Your task to perform on an android device: turn notification dots on Image 0: 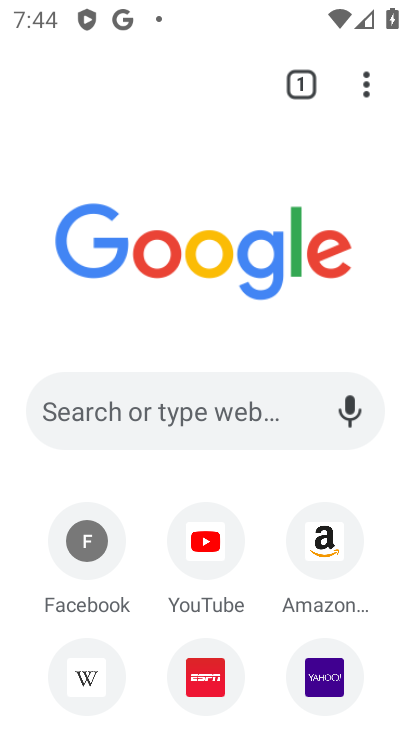
Step 0: press back button
Your task to perform on an android device: turn notification dots on Image 1: 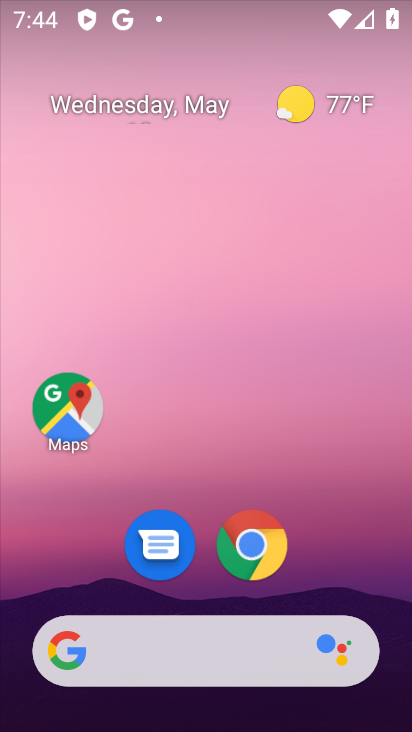
Step 1: drag from (327, 575) to (256, 129)
Your task to perform on an android device: turn notification dots on Image 2: 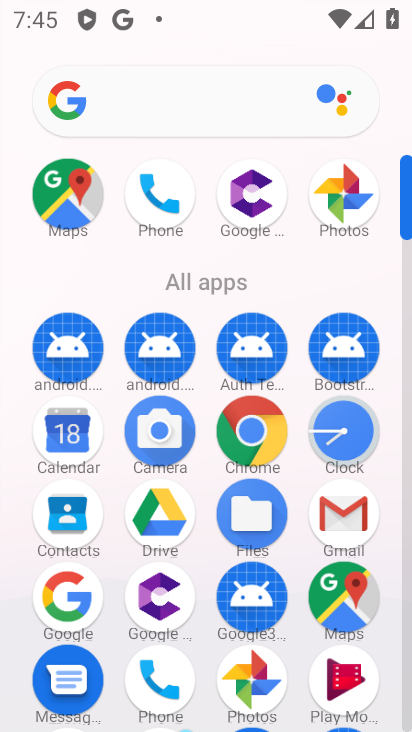
Step 2: drag from (123, 642) to (139, 411)
Your task to perform on an android device: turn notification dots on Image 3: 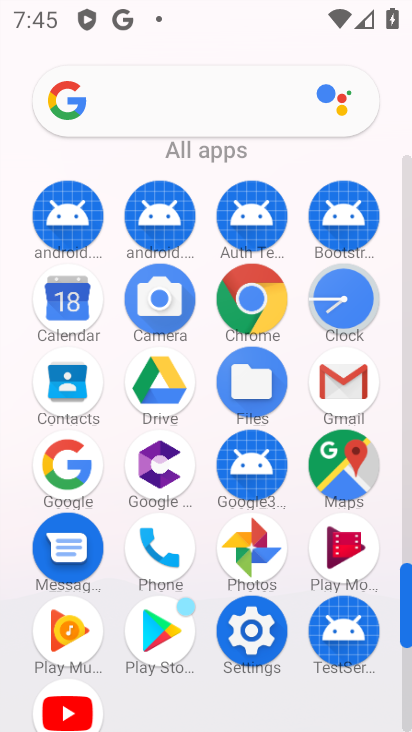
Step 3: click (252, 632)
Your task to perform on an android device: turn notification dots on Image 4: 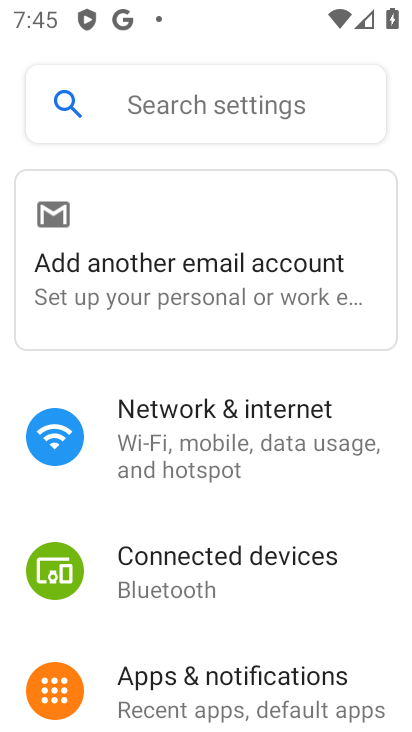
Step 4: drag from (196, 512) to (222, 416)
Your task to perform on an android device: turn notification dots on Image 5: 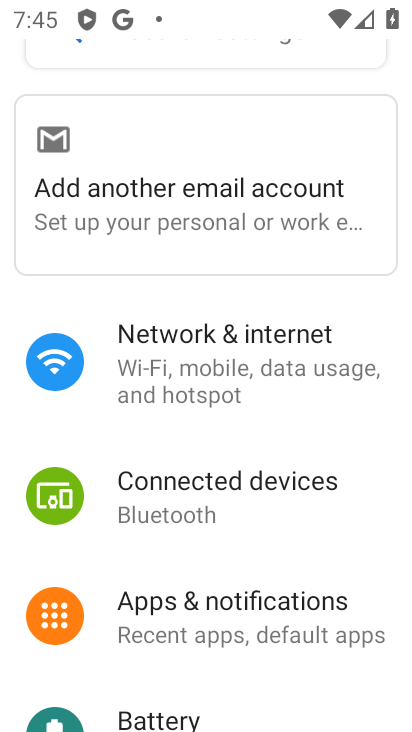
Step 5: click (244, 603)
Your task to perform on an android device: turn notification dots on Image 6: 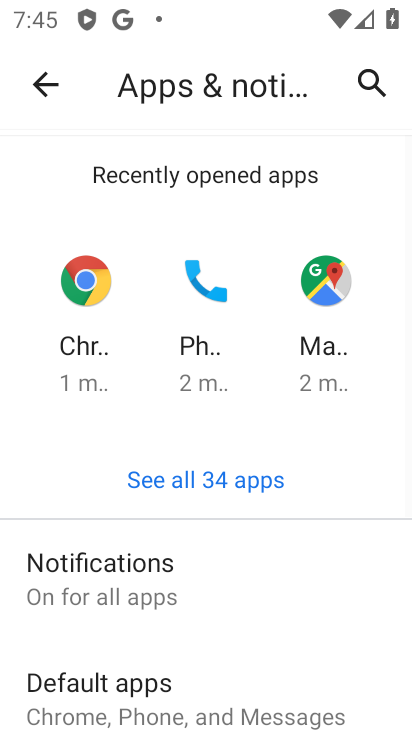
Step 6: drag from (213, 607) to (267, 480)
Your task to perform on an android device: turn notification dots on Image 7: 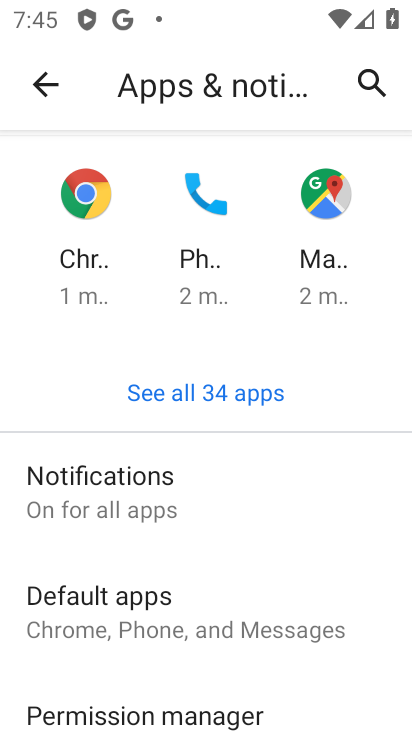
Step 7: click (102, 478)
Your task to perform on an android device: turn notification dots on Image 8: 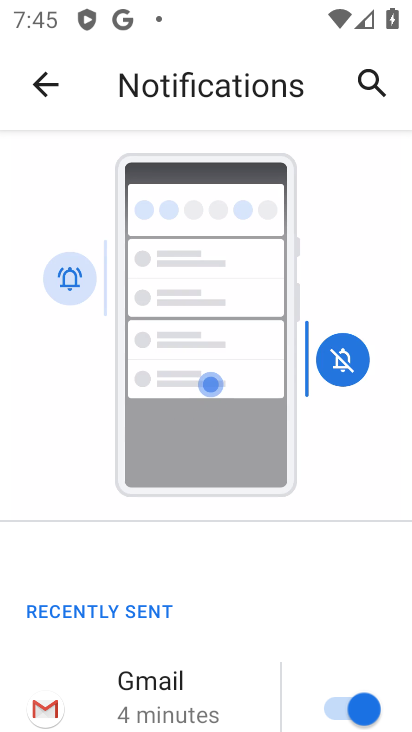
Step 8: drag from (236, 568) to (251, 455)
Your task to perform on an android device: turn notification dots on Image 9: 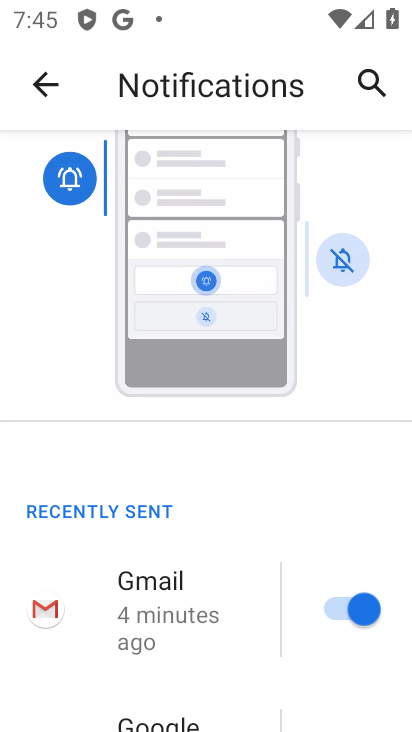
Step 9: drag from (220, 573) to (255, 468)
Your task to perform on an android device: turn notification dots on Image 10: 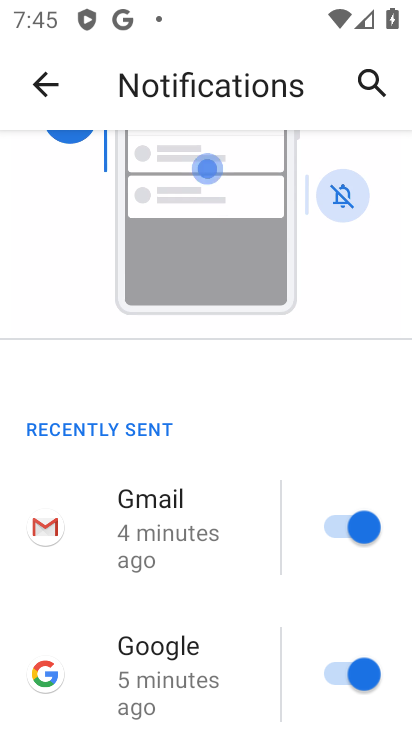
Step 10: drag from (235, 593) to (248, 421)
Your task to perform on an android device: turn notification dots on Image 11: 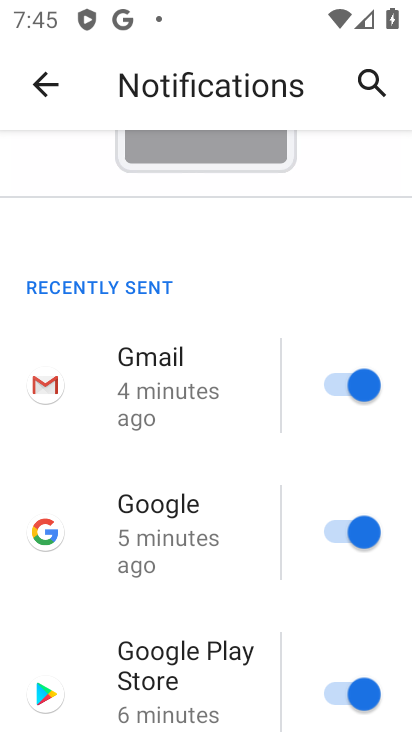
Step 11: drag from (185, 593) to (230, 453)
Your task to perform on an android device: turn notification dots on Image 12: 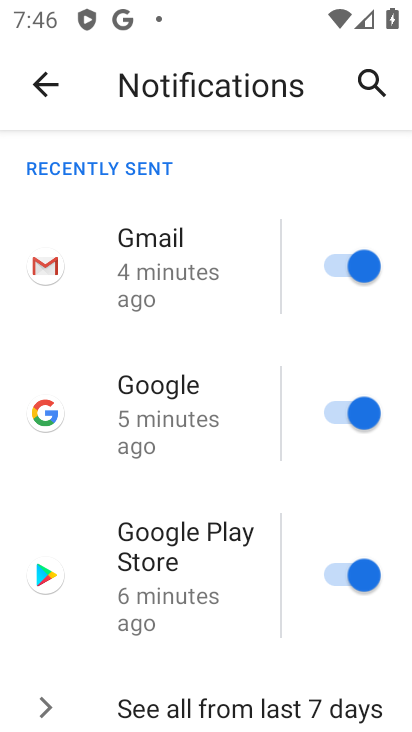
Step 12: drag from (175, 672) to (224, 469)
Your task to perform on an android device: turn notification dots on Image 13: 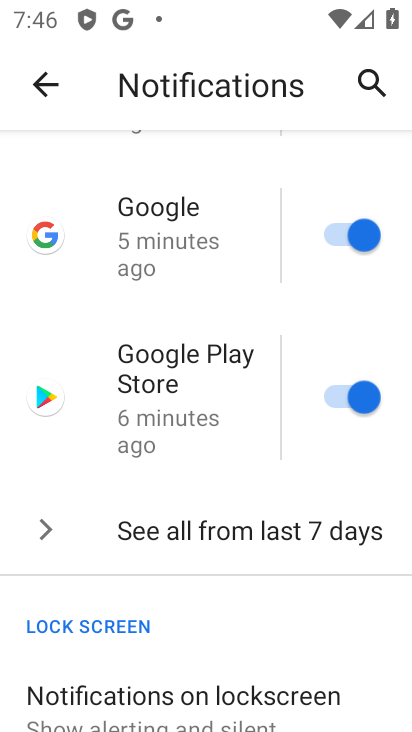
Step 13: drag from (154, 633) to (226, 473)
Your task to perform on an android device: turn notification dots on Image 14: 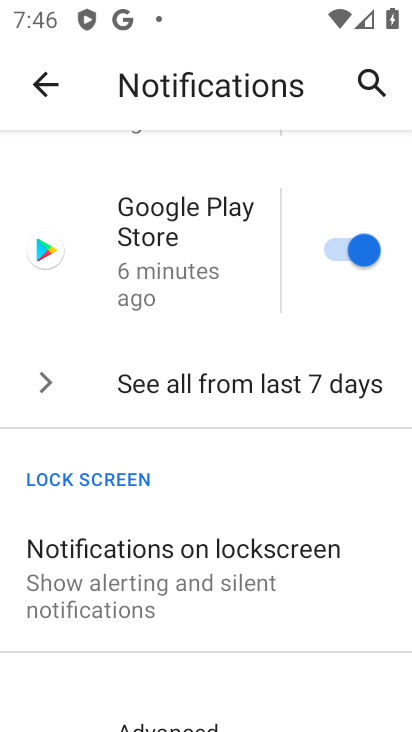
Step 14: drag from (183, 639) to (244, 500)
Your task to perform on an android device: turn notification dots on Image 15: 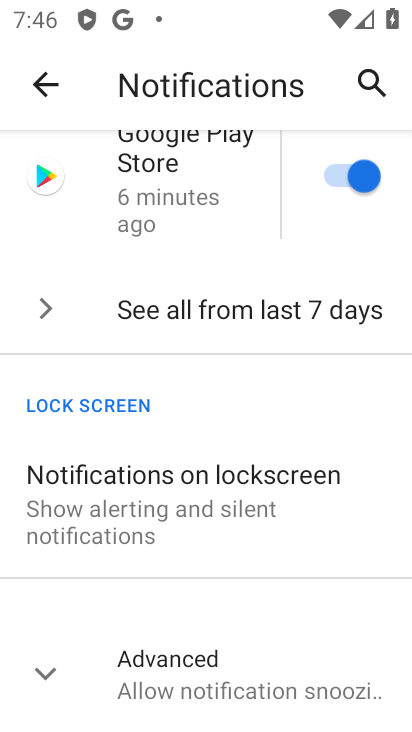
Step 15: click (200, 693)
Your task to perform on an android device: turn notification dots on Image 16: 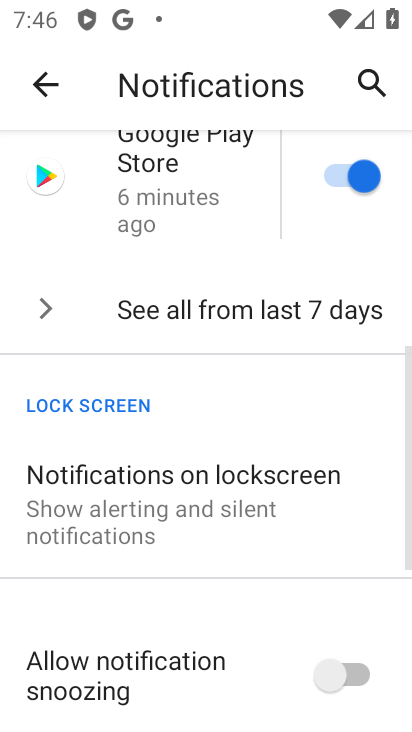
Step 16: task complete